Your task to perform on an android device: Open calendar and show me the fourth week of next month Image 0: 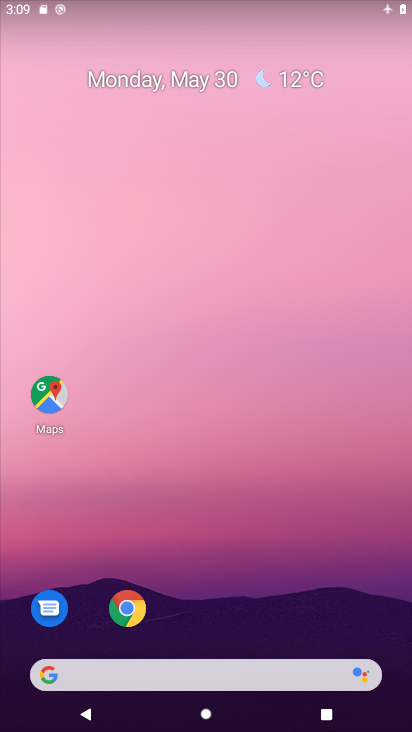
Step 0: drag from (264, 261) to (228, 48)
Your task to perform on an android device: Open calendar and show me the fourth week of next month Image 1: 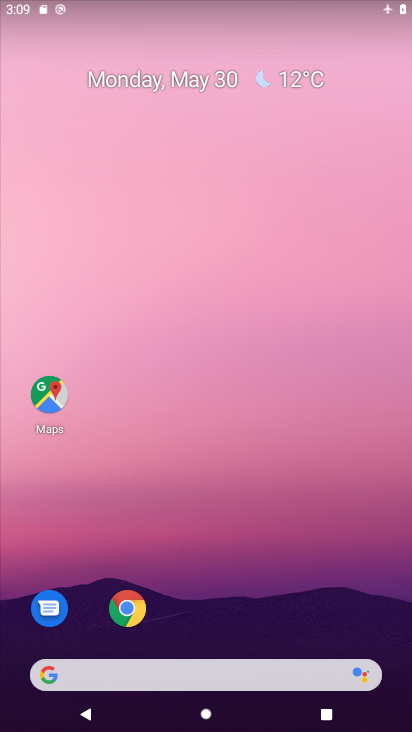
Step 1: drag from (258, 466) to (245, 0)
Your task to perform on an android device: Open calendar and show me the fourth week of next month Image 2: 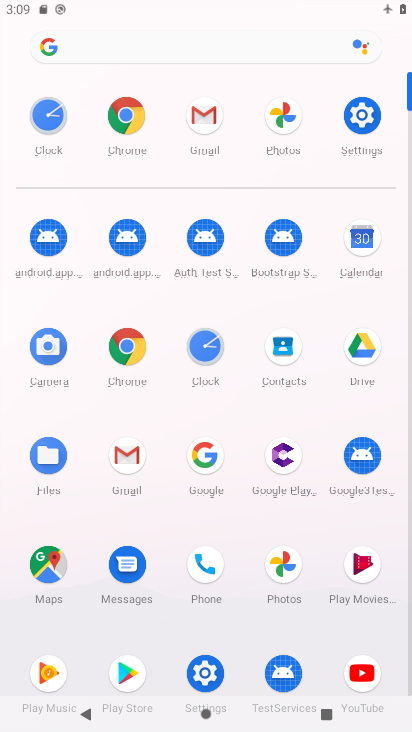
Step 2: click (371, 246)
Your task to perform on an android device: Open calendar and show me the fourth week of next month Image 3: 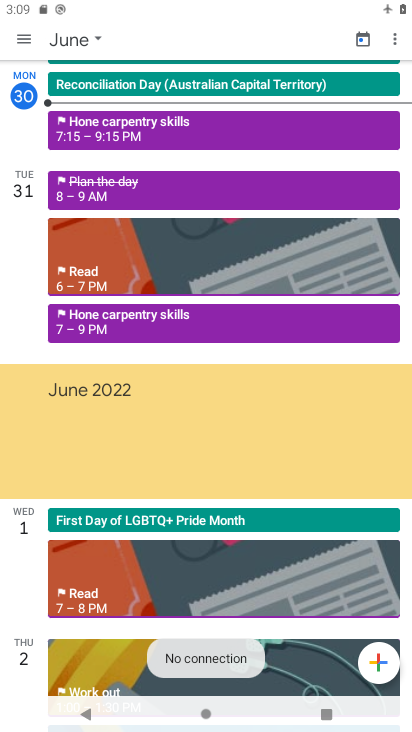
Step 3: click (29, 32)
Your task to perform on an android device: Open calendar and show me the fourth week of next month Image 4: 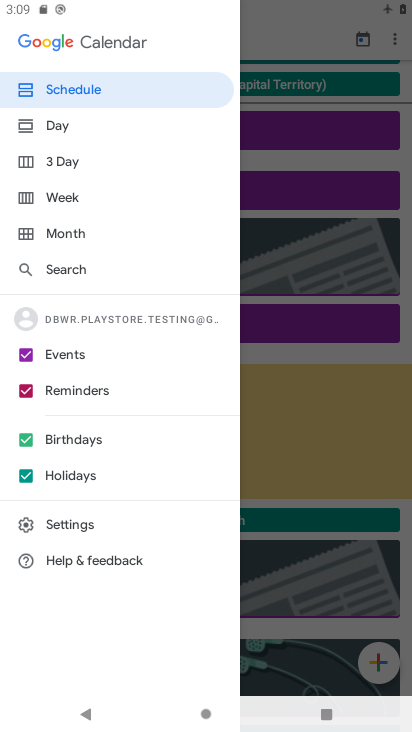
Step 4: click (98, 191)
Your task to perform on an android device: Open calendar and show me the fourth week of next month Image 5: 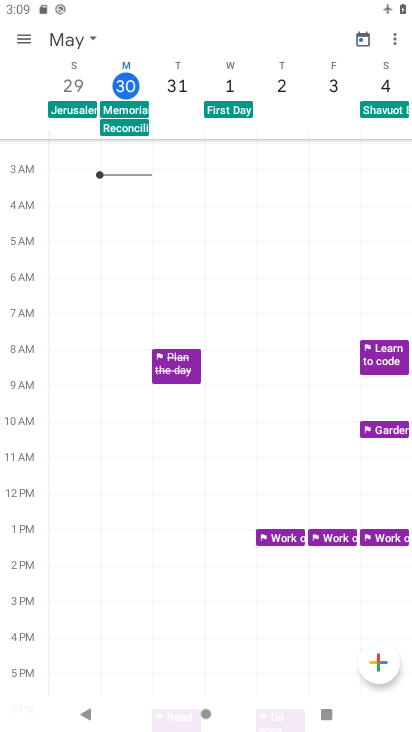
Step 5: click (87, 35)
Your task to perform on an android device: Open calendar and show me the fourth week of next month Image 6: 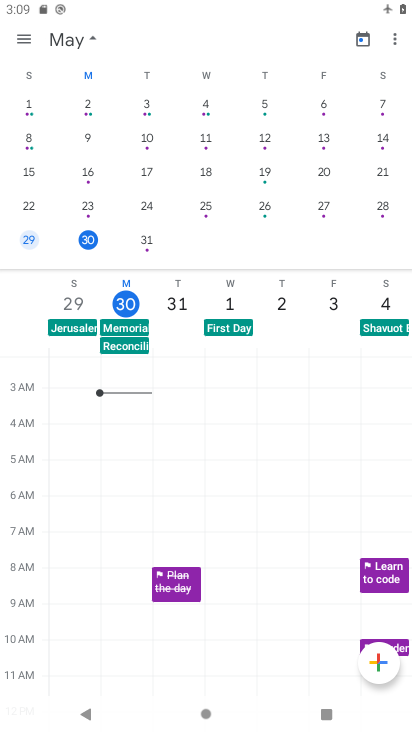
Step 6: drag from (362, 179) to (28, 299)
Your task to perform on an android device: Open calendar and show me the fourth week of next month Image 7: 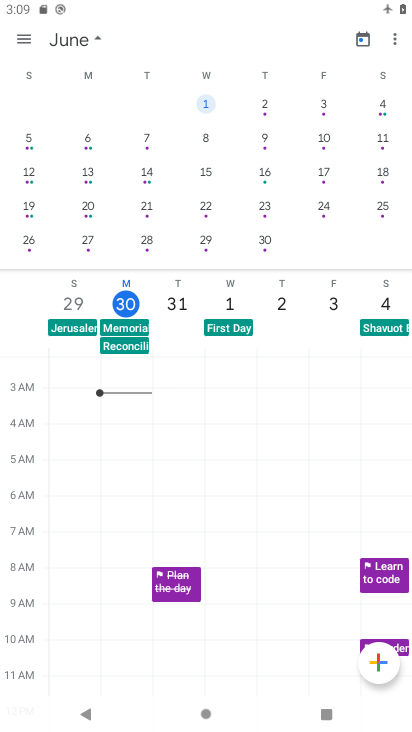
Step 7: click (31, 210)
Your task to perform on an android device: Open calendar and show me the fourth week of next month Image 8: 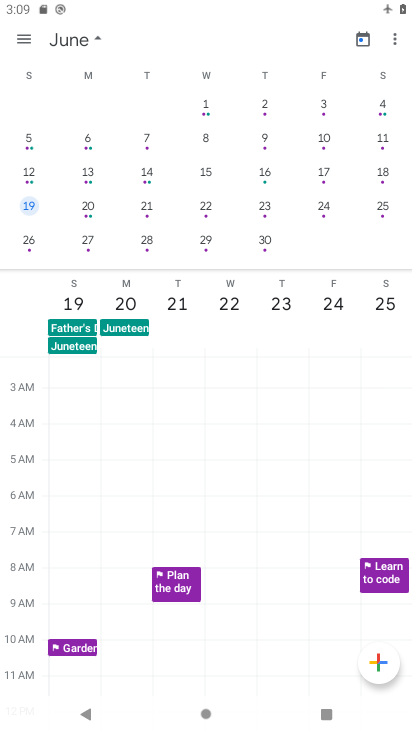
Step 8: task complete